Your task to perform on an android device: Search for the best rated drill on Lowes.com Image 0: 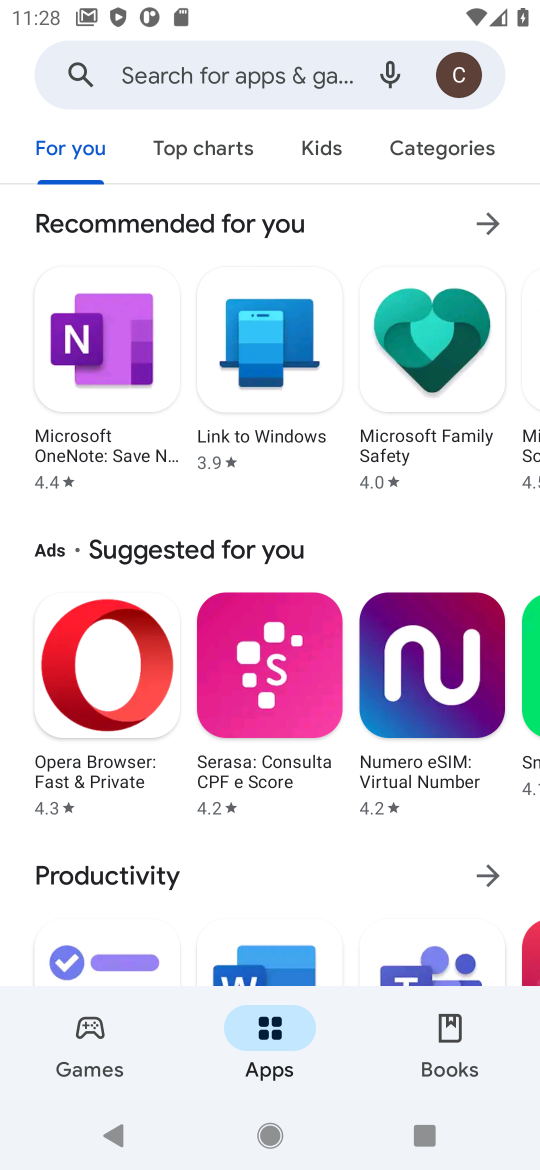
Step 0: press home button
Your task to perform on an android device: Search for the best rated drill on Lowes.com Image 1: 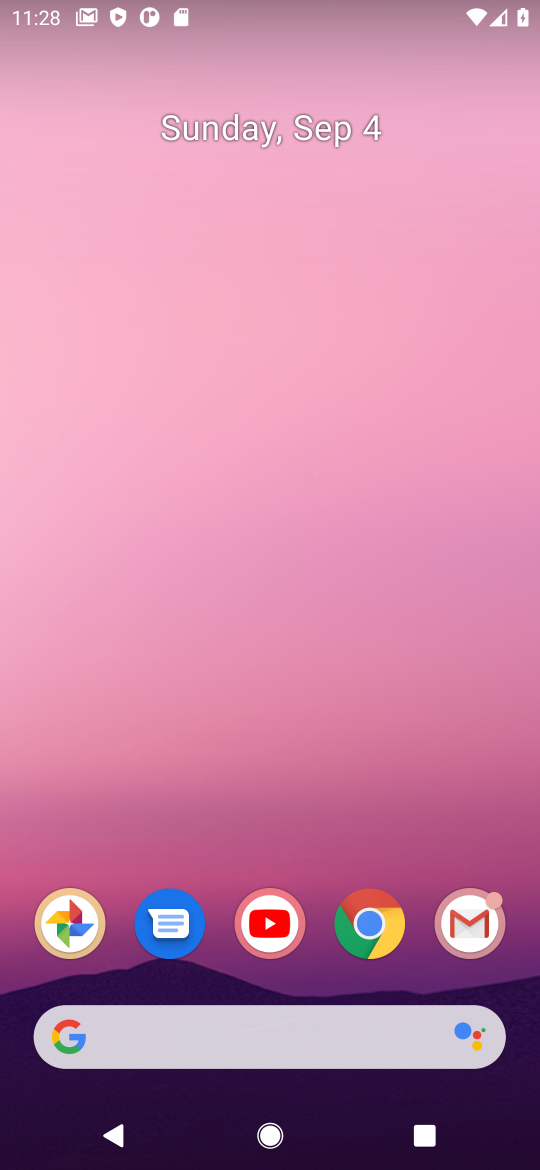
Step 1: click (352, 927)
Your task to perform on an android device: Search for the best rated drill on Lowes.com Image 2: 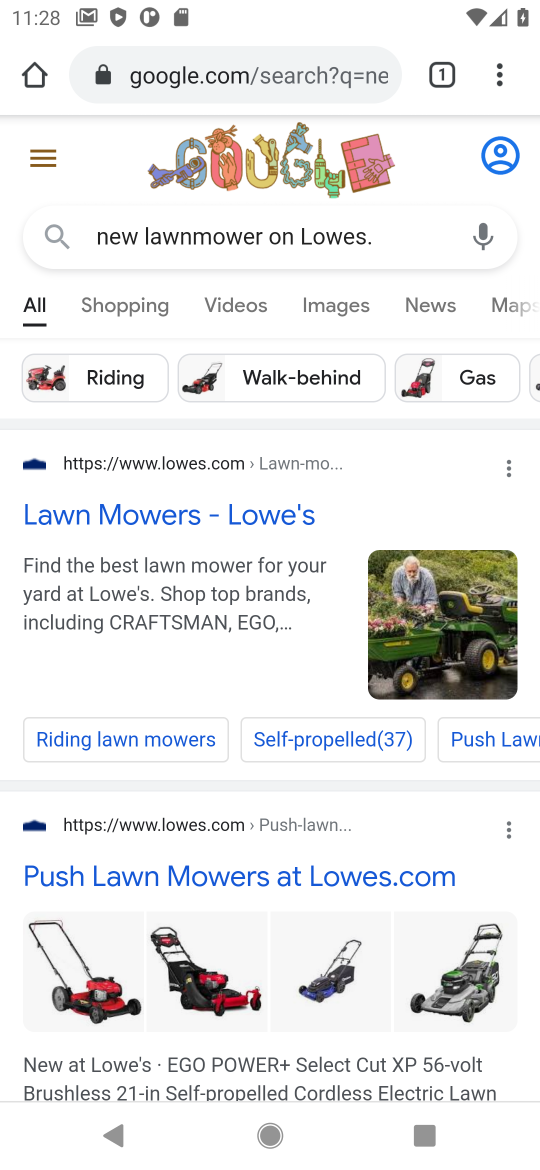
Step 2: click (201, 64)
Your task to perform on an android device: Search for the best rated drill on Lowes.com Image 3: 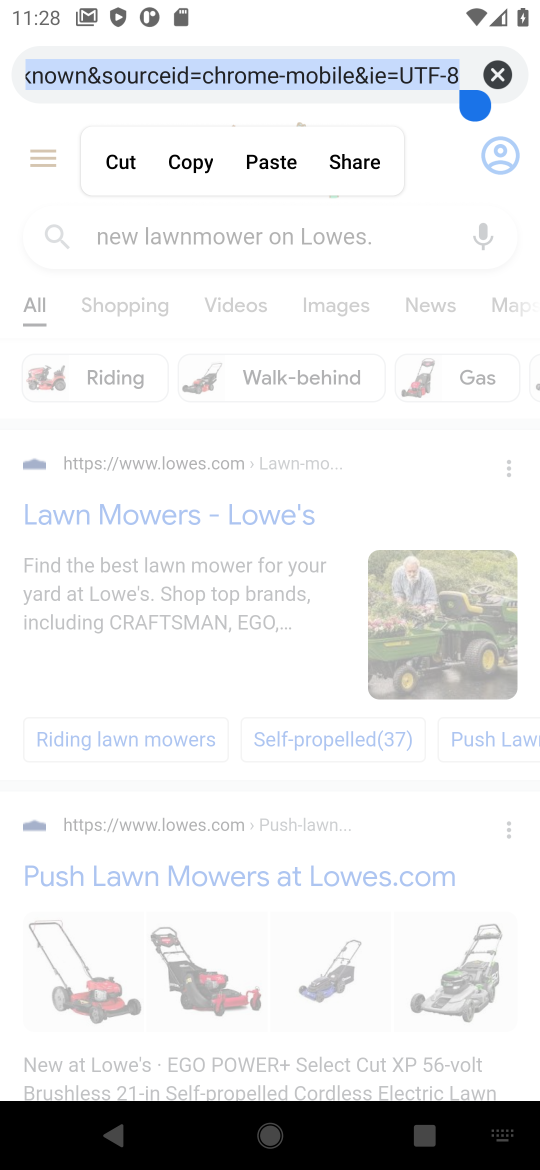
Step 3: click (492, 73)
Your task to perform on an android device: Search for the best rated drill on Lowes.com Image 4: 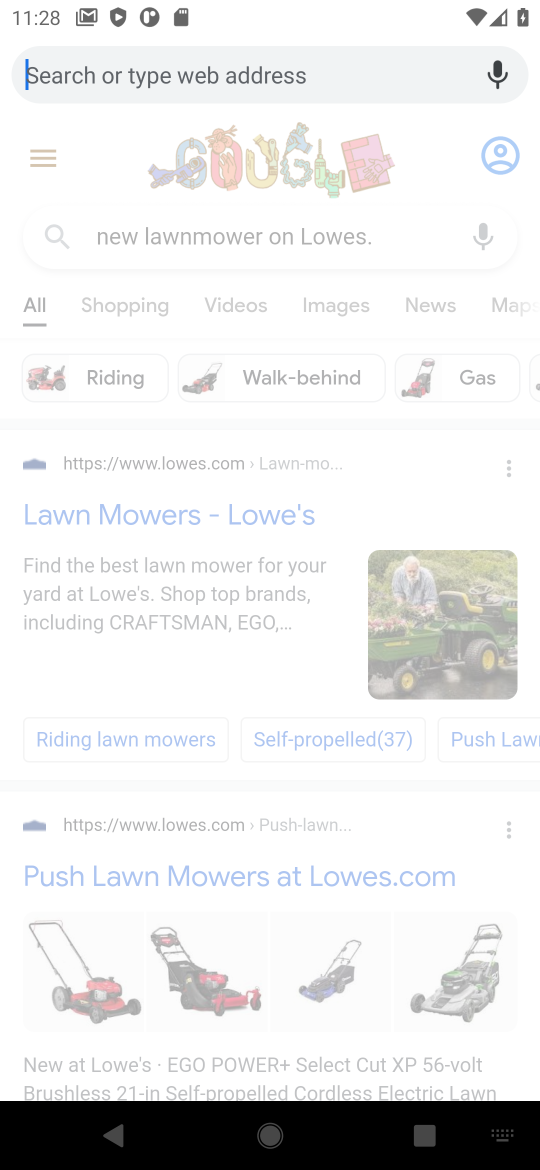
Step 4: type "the best rated drill on Lowes.com"
Your task to perform on an android device: Search for the best rated drill on Lowes.com Image 5: 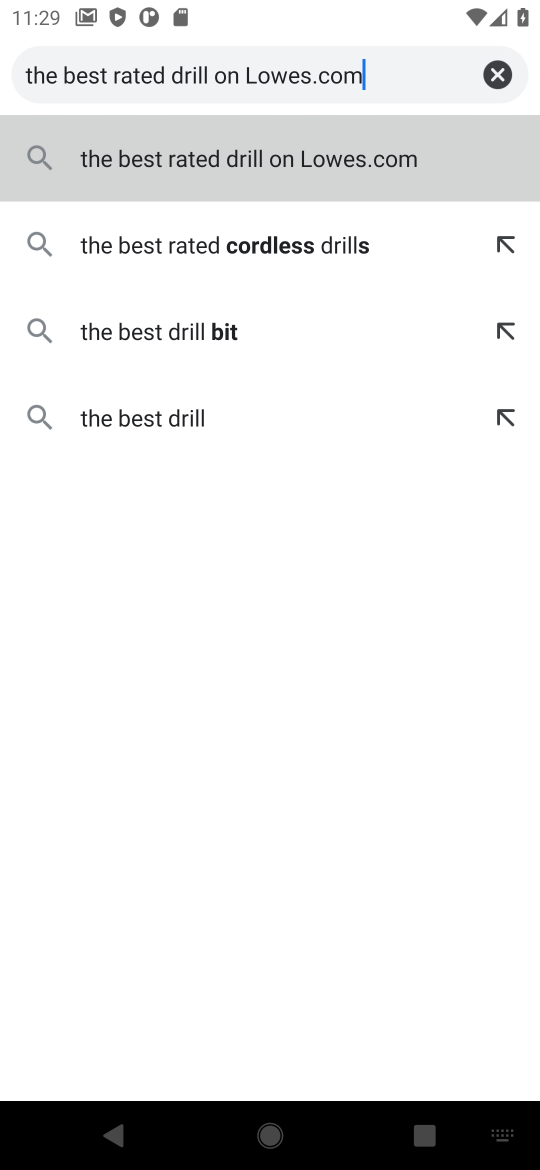
Step 5: click (364, 163)
Your task to perform on an android device: Search for the best rated drill on Lowes.com Image 6: 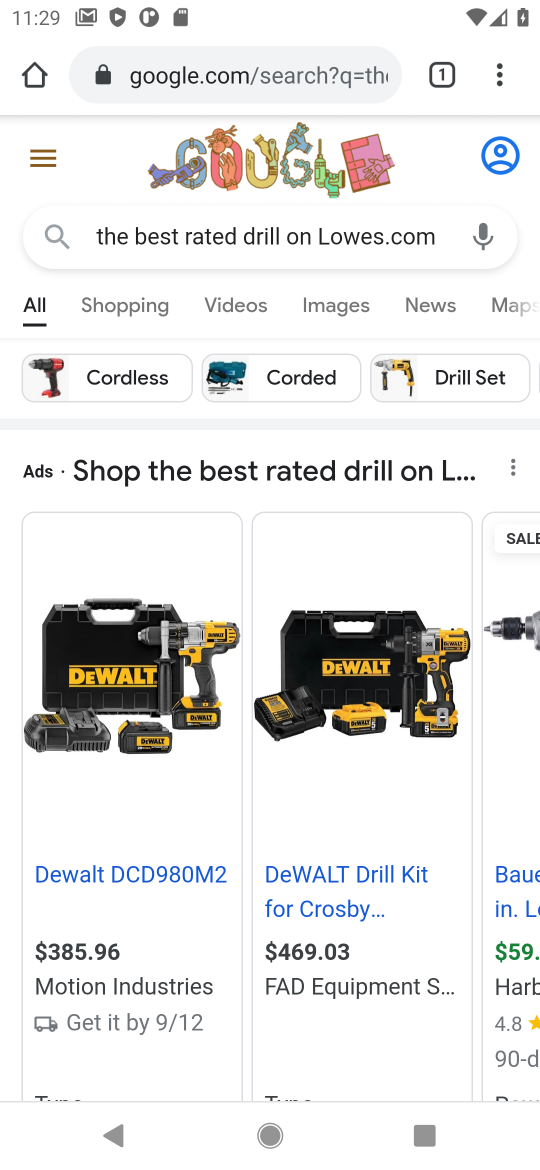
Step 6: drag from (33, 753) to (42, 613)
Your task to perform on an android device: Search for the best rated drill on Lowes.com Image 7: 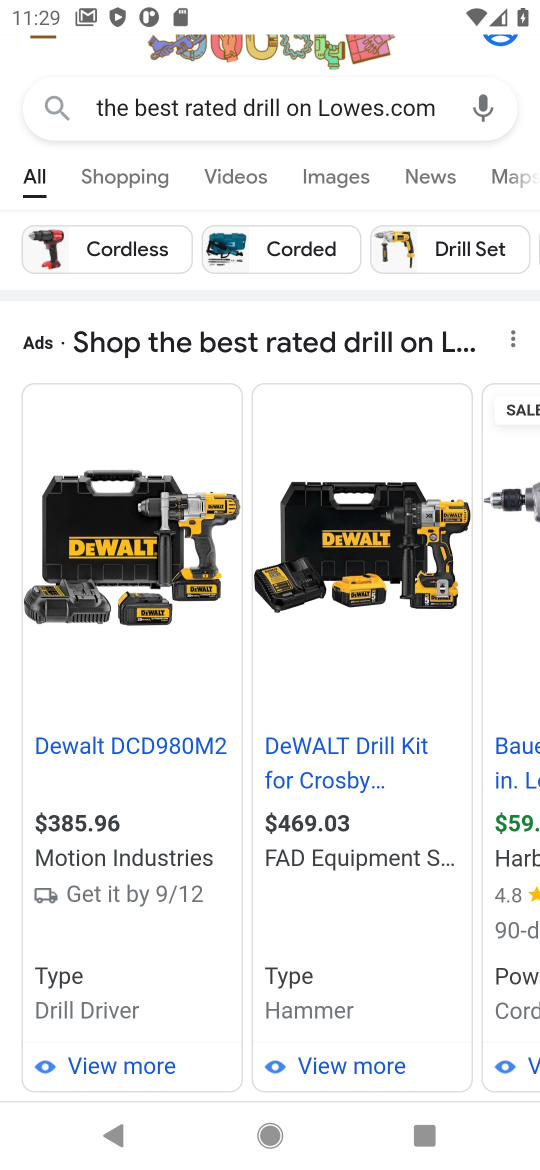
Step 7: drag from (3, 1095) to (26, 662)
Your task to perform on an android device: Search for the best rated drill on Lowes.com Image 8: 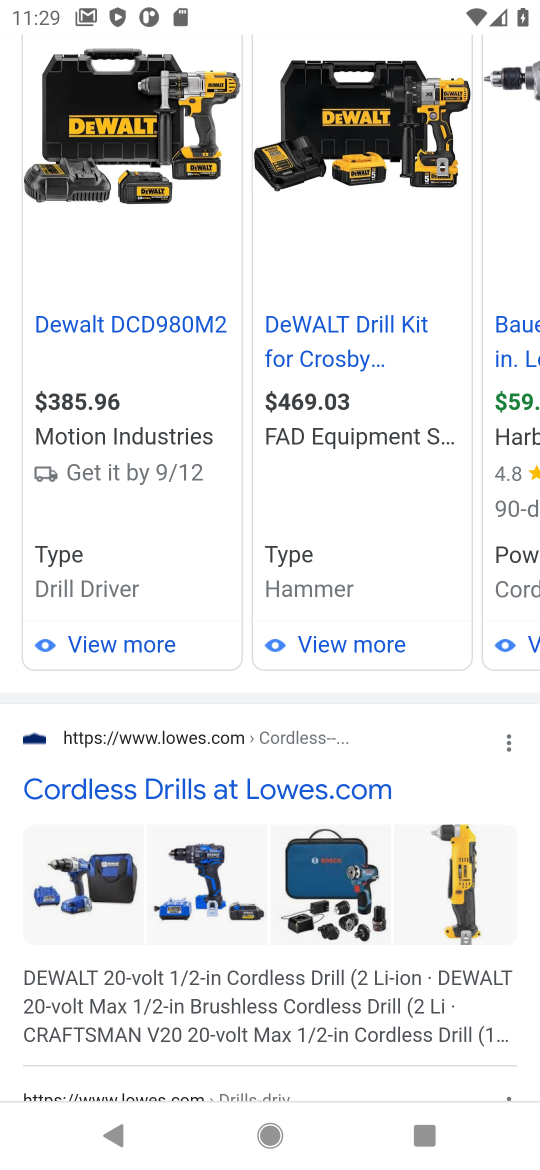
Step 8: click (44, 335)
Your task to perform on an android device: Search for the best rated drill on Lowes.com Image 9: 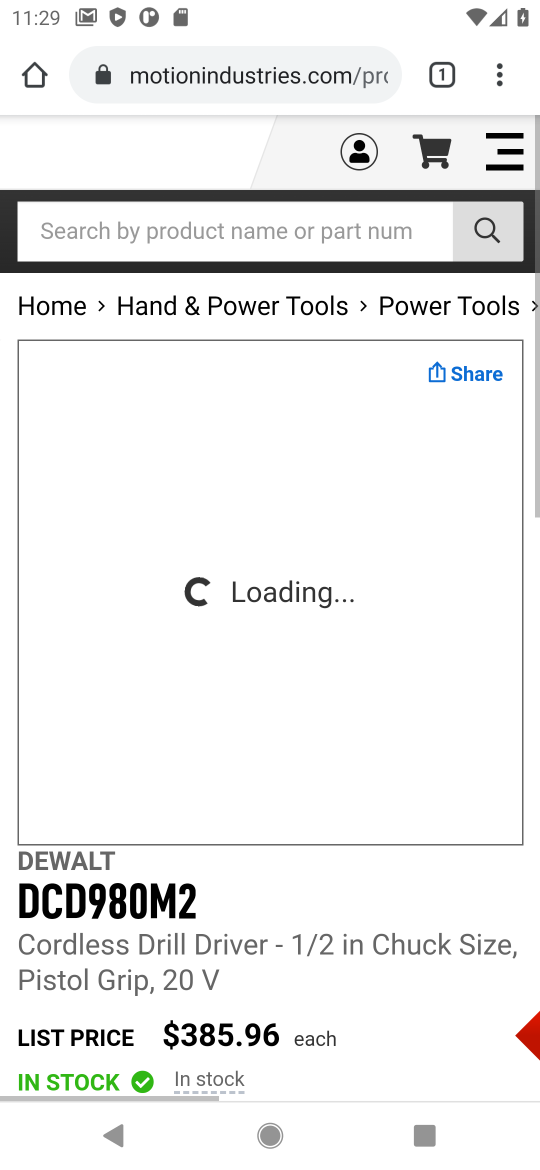
Step 9: task complete